Your task to perform on an android device: toggle improve location accuracy Image 0: 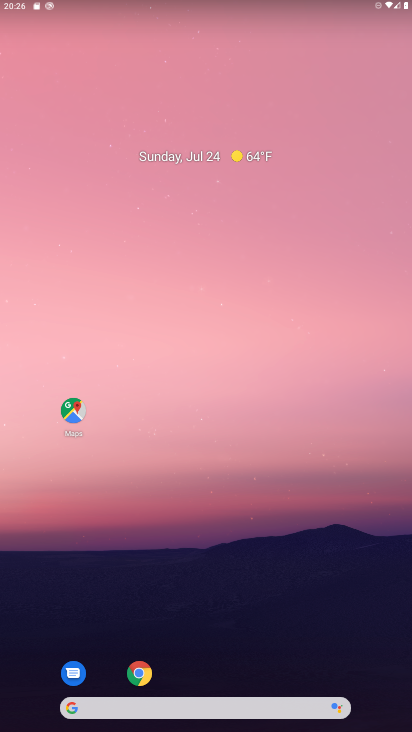
Step 0: drag from (290, 607) to (329, 131)
Your task to perform on an android device: toggle improve location accuracy Image 1: 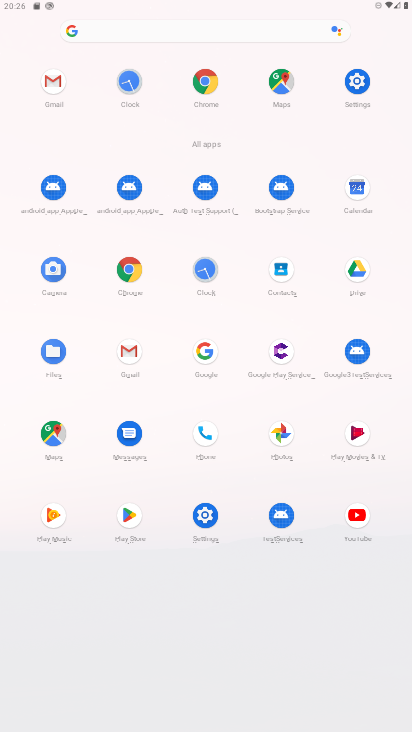
Step 1: click (210, 517)
Your task to perform on an android device: toggle improve location accuracy Image 2: 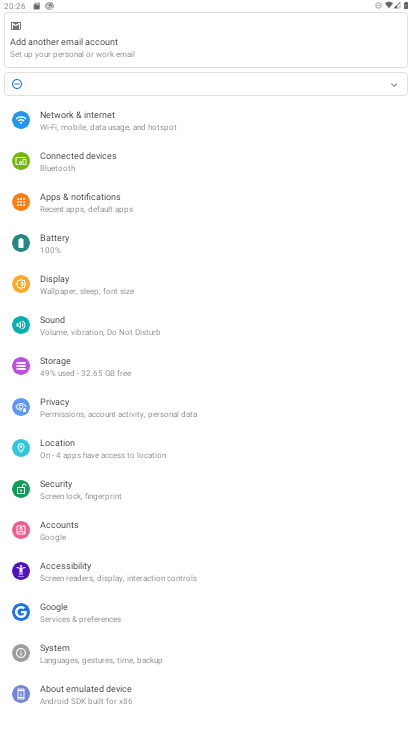
Step 2: click (121, 445)
Your task to perform on an android device: toggle improve location accuracy Image 3: 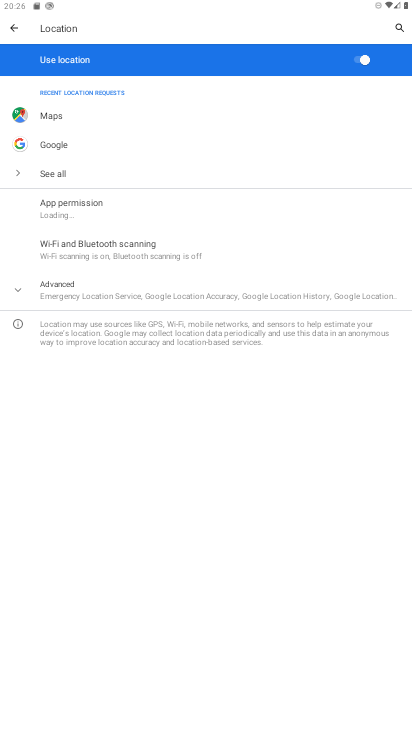
Step 3: click (99, 280)
Your task to perform on an android device: toggle improve location accuracy Image 4: 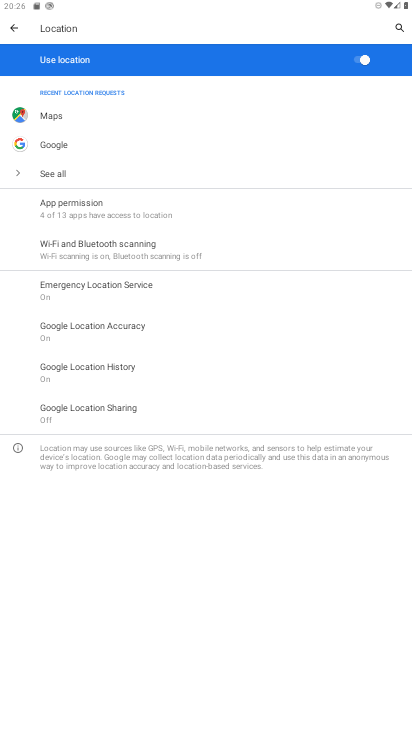
Step 4: click (124, 326)
Your task to perform on an android device: toggle improve location accuracy Image 5: 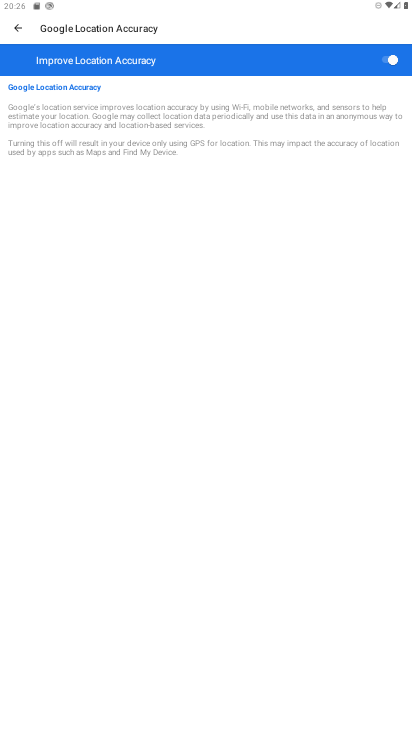
Step 5: click (395, 63)
Your task to perform on an android device: toggle improve location accuracy Image 6: 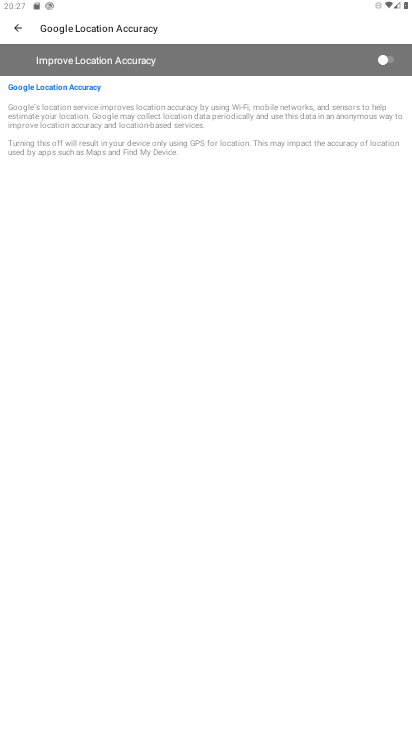
Step 6: task complete